Your task to perform on an android device: set an alarm Image 0: 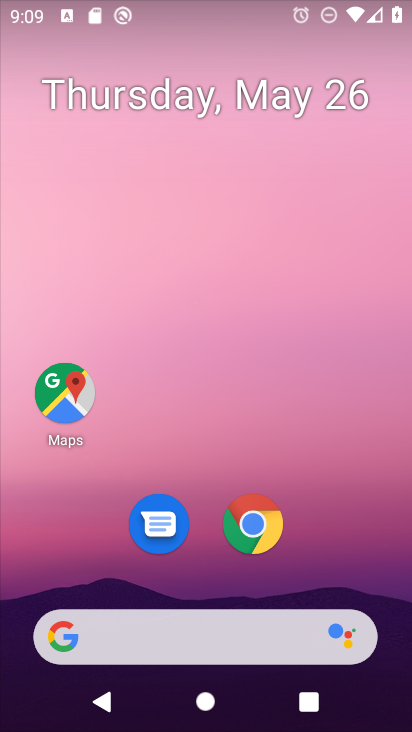
Step 0: drag from (237, 445) to (263, 0)
Your task to perform on an android device: set an alarm Image 1: 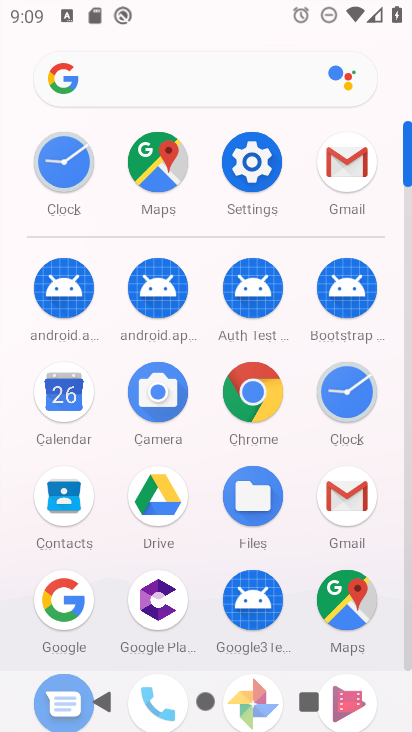
Step 1: click (77, 163)
Your task to perform on an android device: set an alarm Image 2: 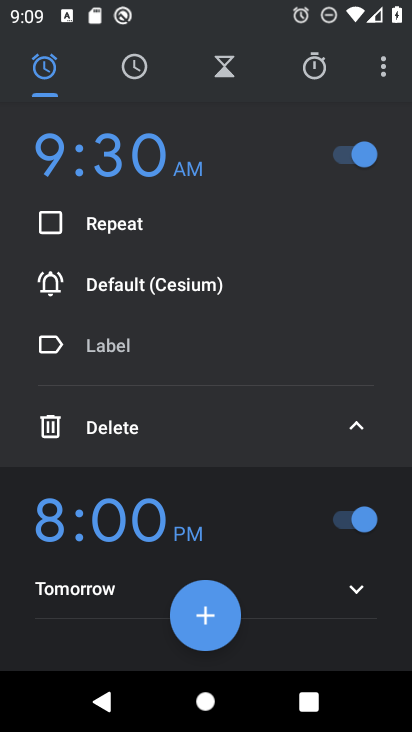
Step 2: click (194, 616)
Your task to perform on an android device: set an alarm Image 3: 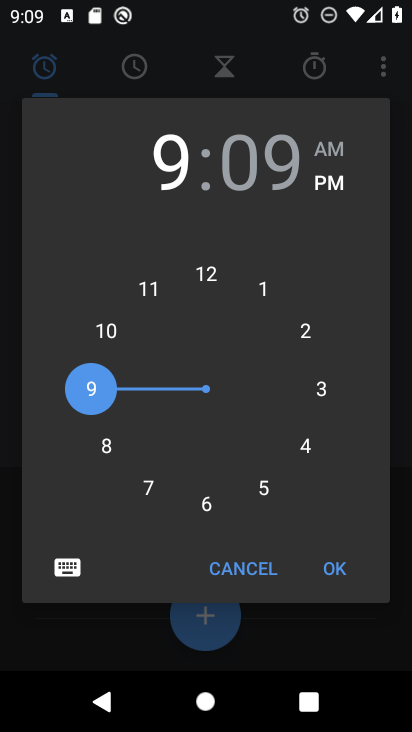
Step 3: click (241, 150)
Your task to perform on an android device: set an alarm Image 4: 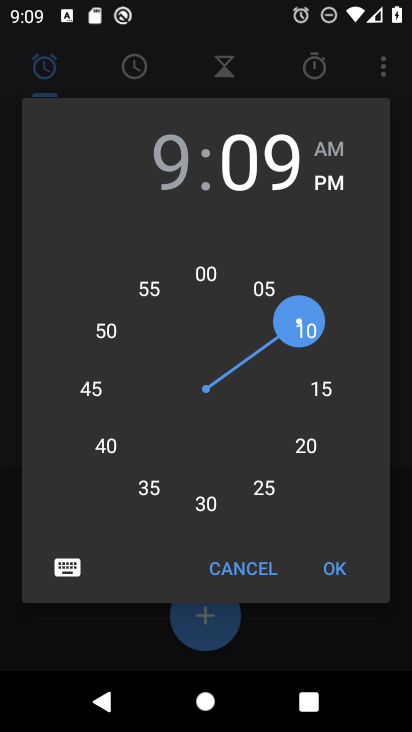
Step 4: click (311, 382)
Your task to perform on an android device: set an alarm Image 5: 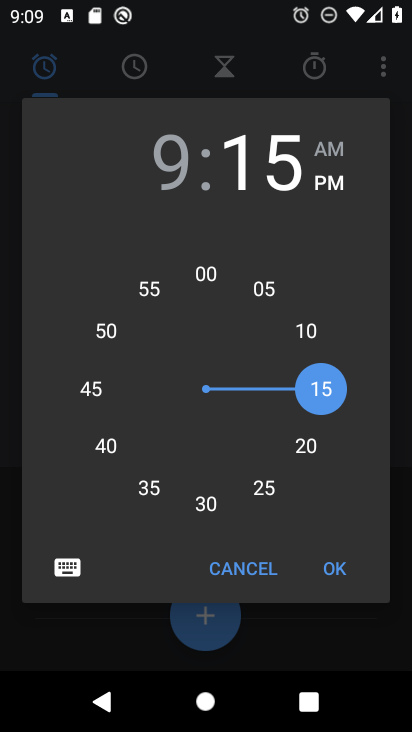
Step 5: click (334, 143)
Your task to perform on an android device: set an alarm Image 6: 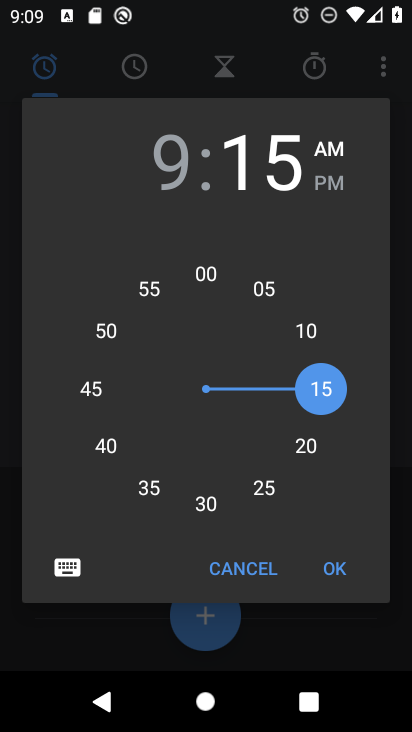
Step 6: click (330, 563)
Your task to perform on an android device: set an alarm Image 7: 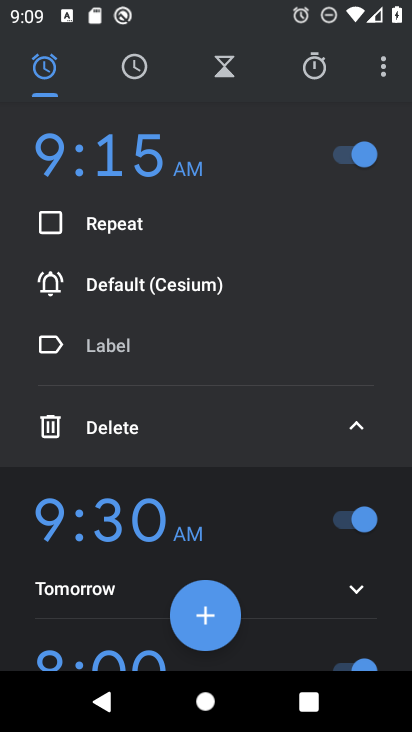
Step 7: task complete